Your task to perform on an android device: Search for electric lawnmowers on Home Depot Image 0: 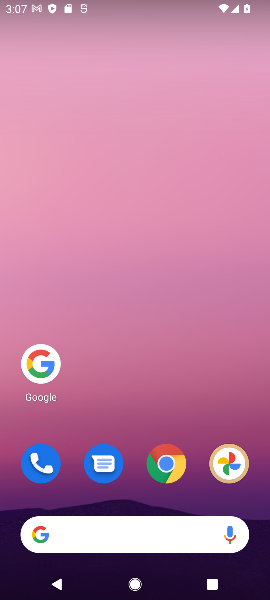
Step 0: click (30, 355)
Your task to perform on an android device: Search for electric lawnmowers on Home Depot Image 1: 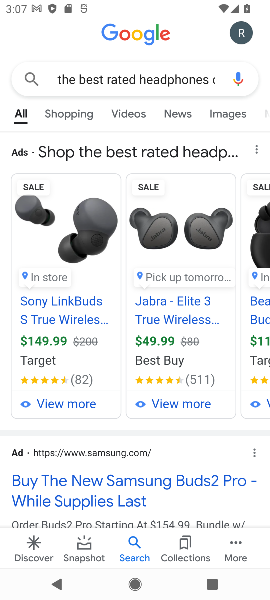
Step 1: click (192, 81)
Your task to perform on an android device: Search for electric lawnmowers on Home Depot Image 2: 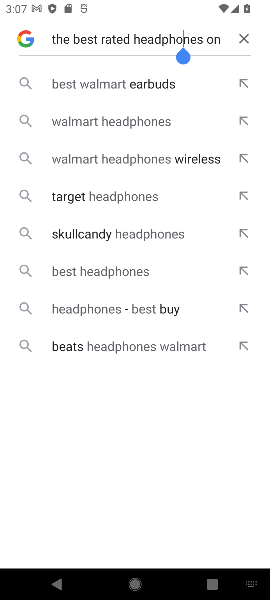
Step 2: click (238, 38)
Your task to perform on an android device: Search for electric lawnmowers on Home Depot Image 3: 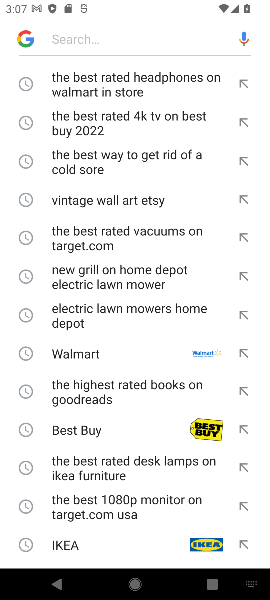
Step 3: click (92, 39)
Your task to perform on an android device: Search for electric lawnmowers on Home Depot Image 4: 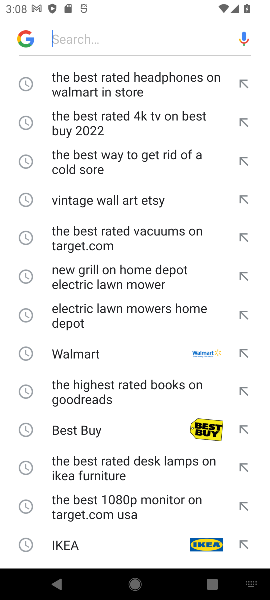
Step 4: type "electric lawnmowers on Home Depot "
Your task to perform on an android device: Search for electric lawnmowers on Home Depot Image 5: 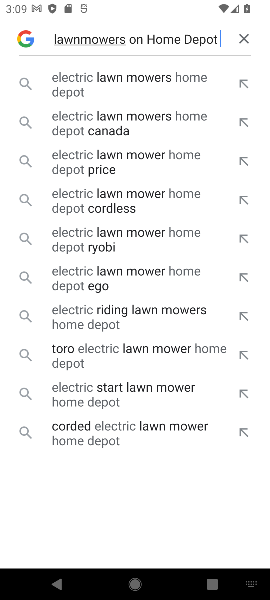
Step 5: click (108, 80)
Your task to perform on an android device: Search for electric lawnmowers on Home Depot Image 6: 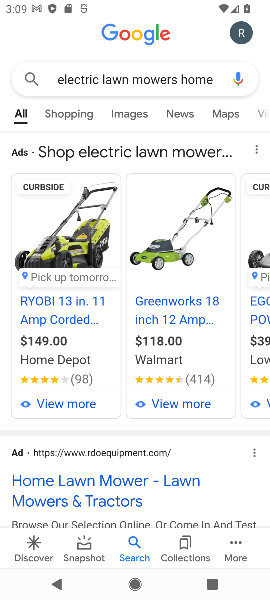
Step 6: task complete